Your task to perform on an android device: Open Youtube and go to "Your channel" Image 0: 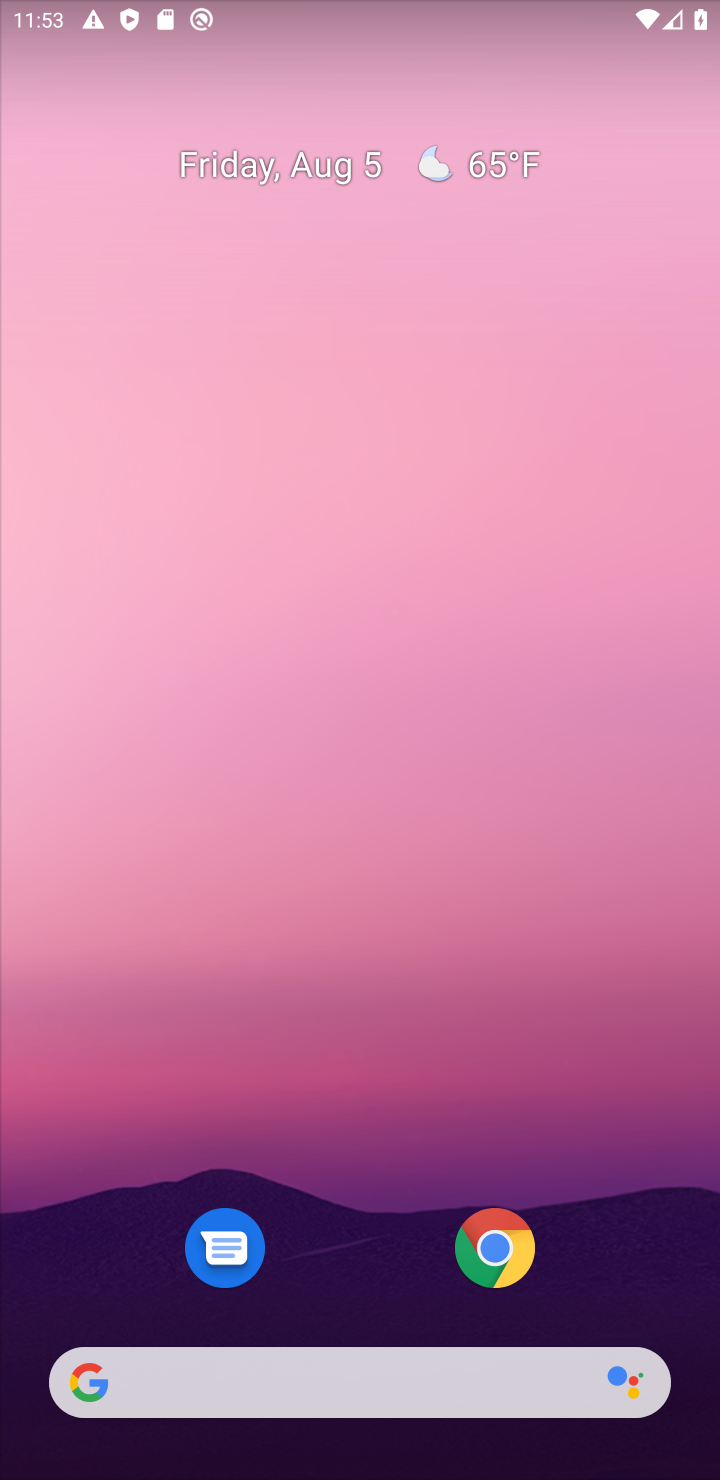
Step 0: drag from (350, 1308) to (366, 115)
Your task to perform on an android device: Open Youtube and go to "Your channel" Image 1: 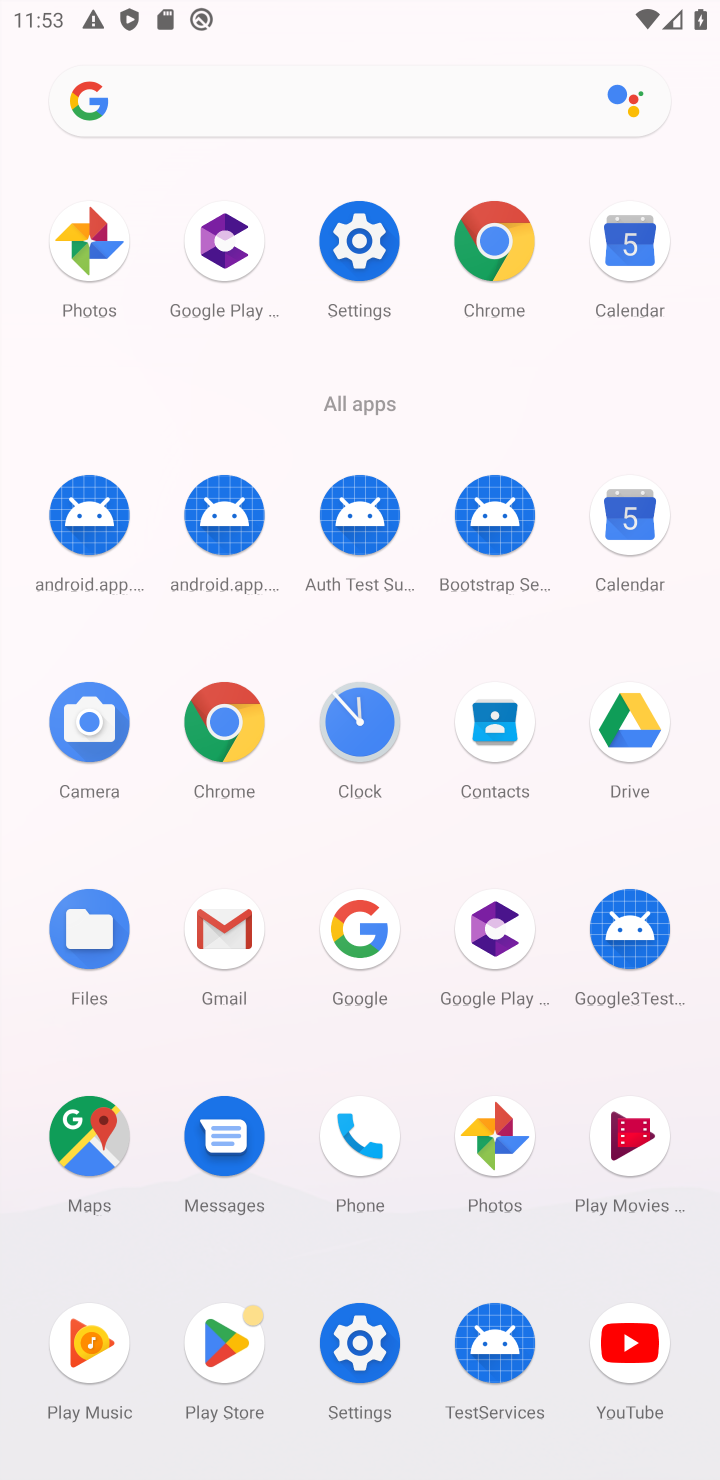
Step 1: click (629, 1335)
Your task to perform on an android device: Open Youtube and go to "Your channel" Image 2: 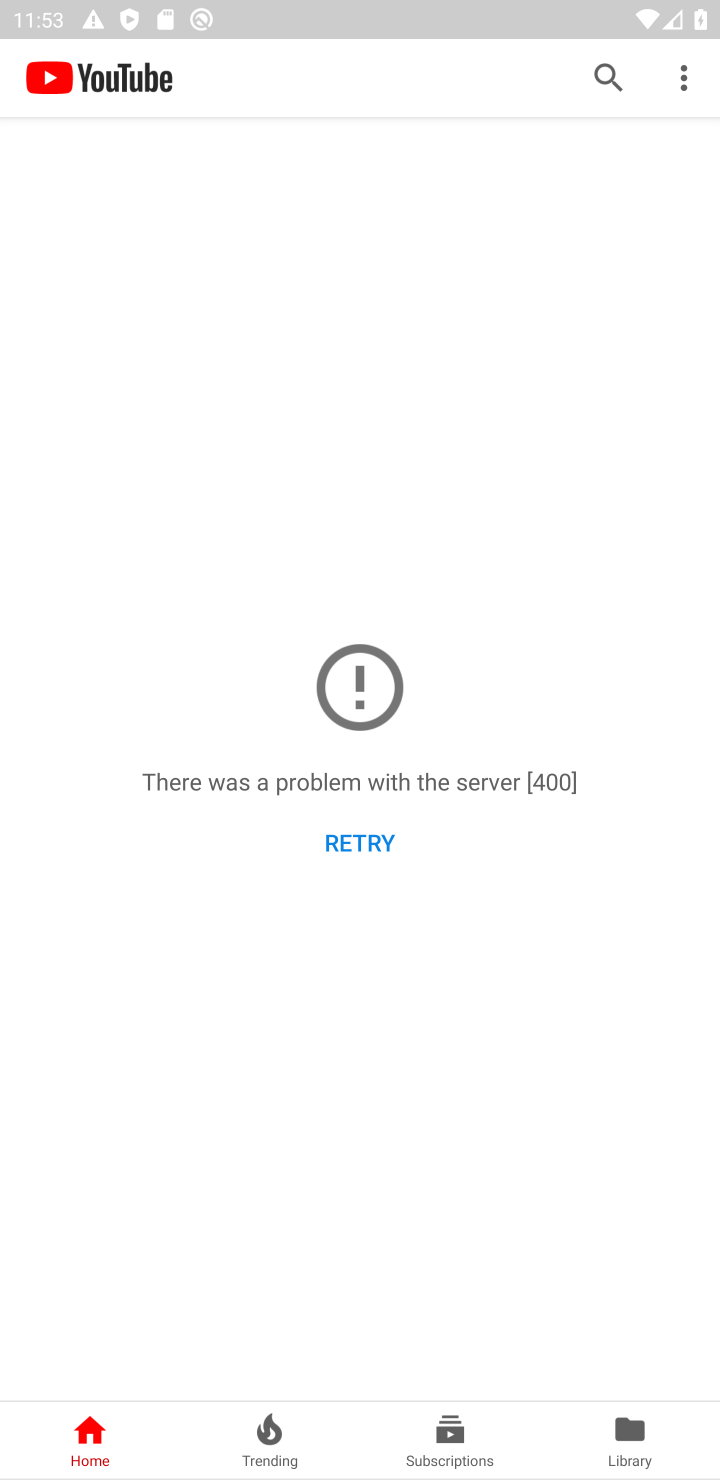
Step 2: click (629, 1434)
Your task to perform on an android device: Open Youtube and go to "Your channel" Image 3: 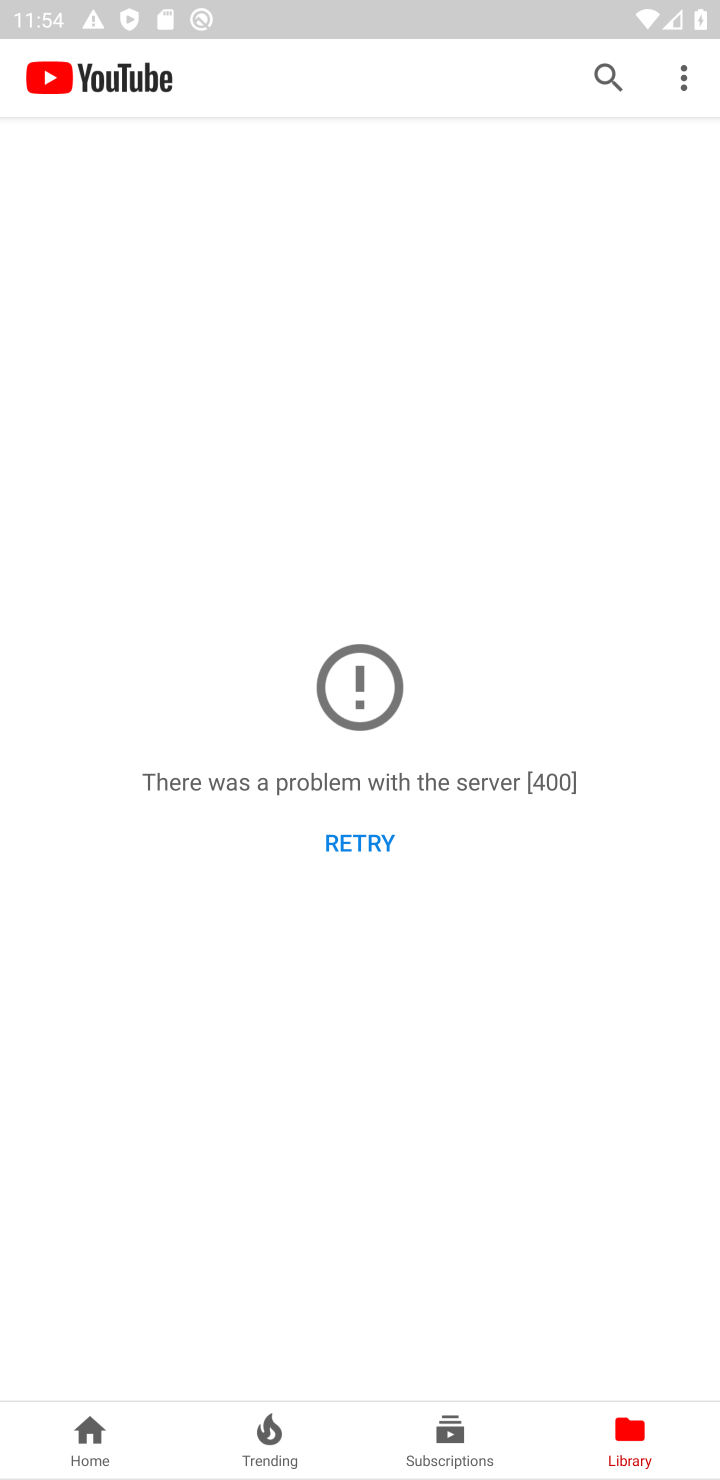
Step 3: click (364, 841)
Your task to perform on an android device: Open Youtube and go to "Your channel" Image 4: 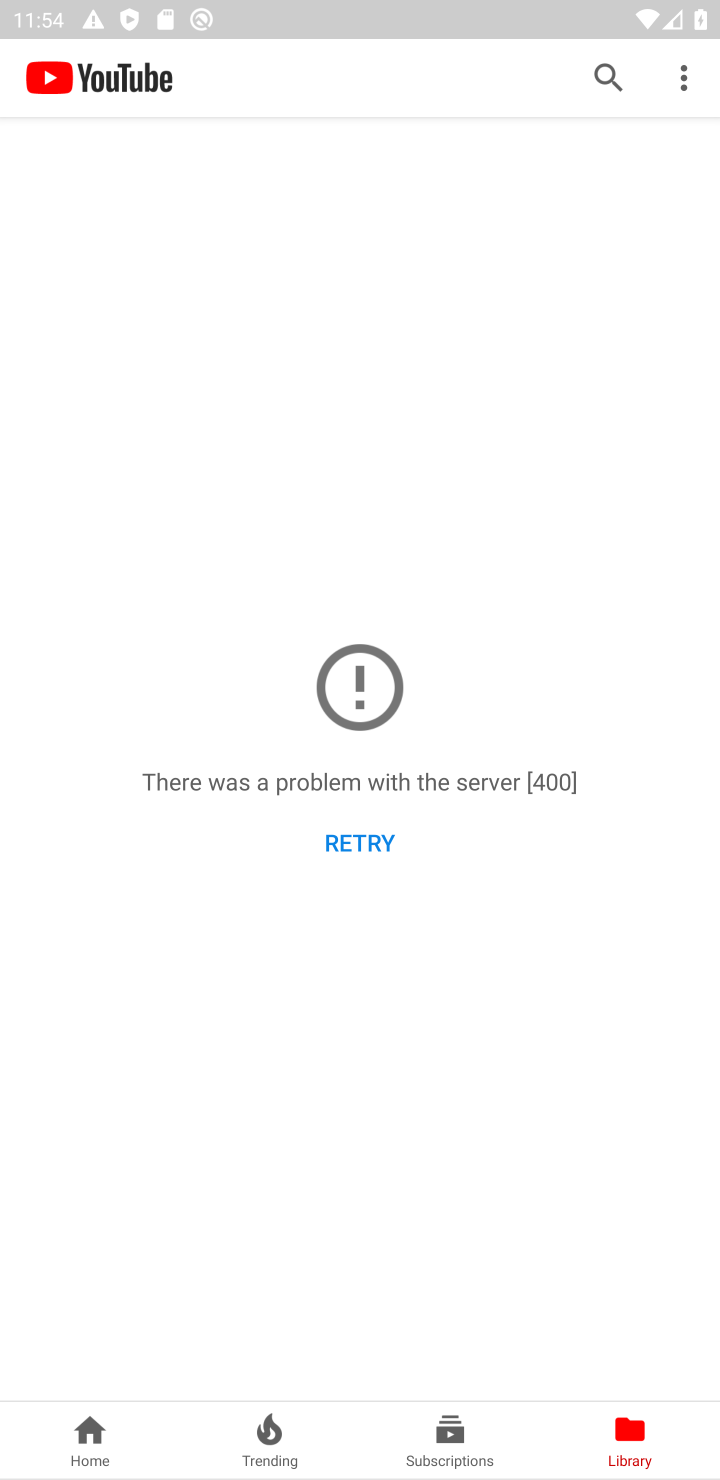
Step 4: click (682, 64)
Your task to perform on an android device: Open Youtube and go to "Your channel" Image 5: 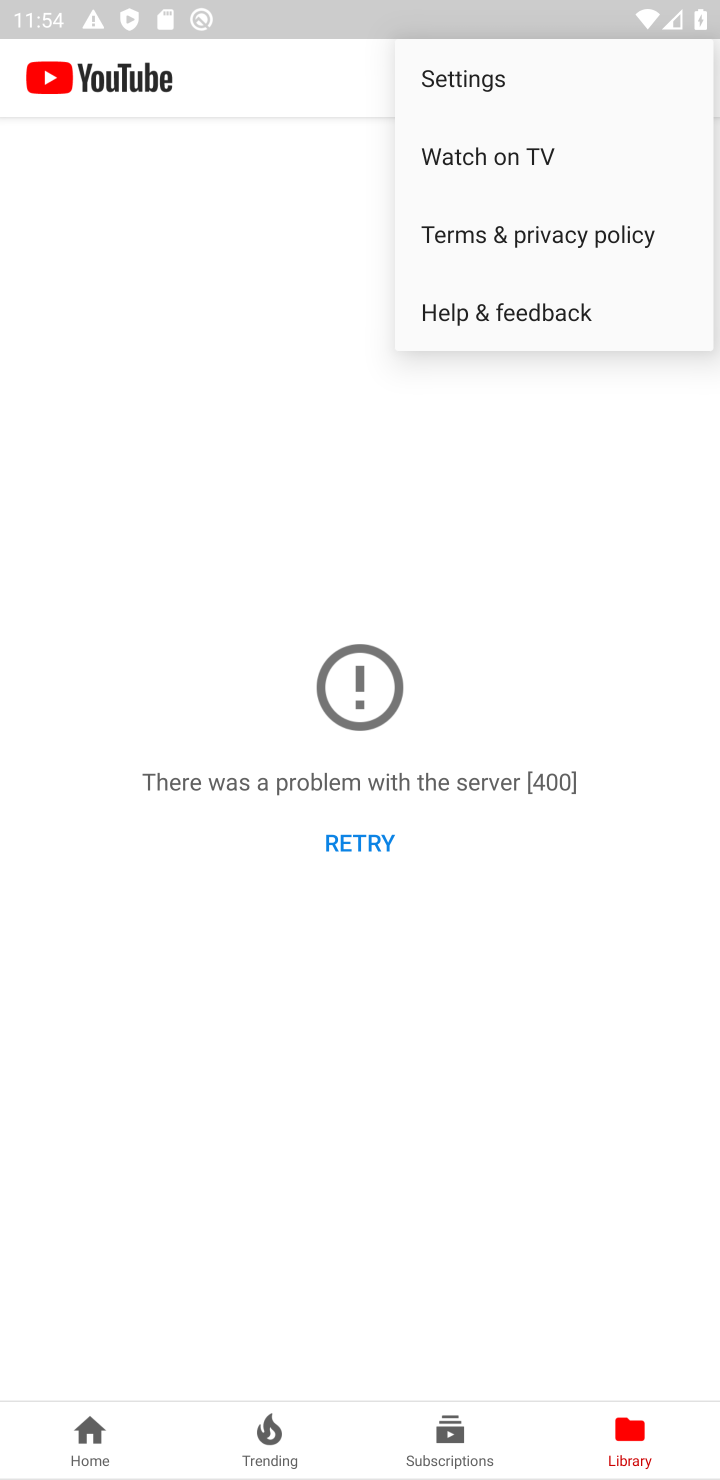
Step 5: click (521, 62)
Your task to perform on an android device: Open Youtube and go to "Your channel" Image 6: 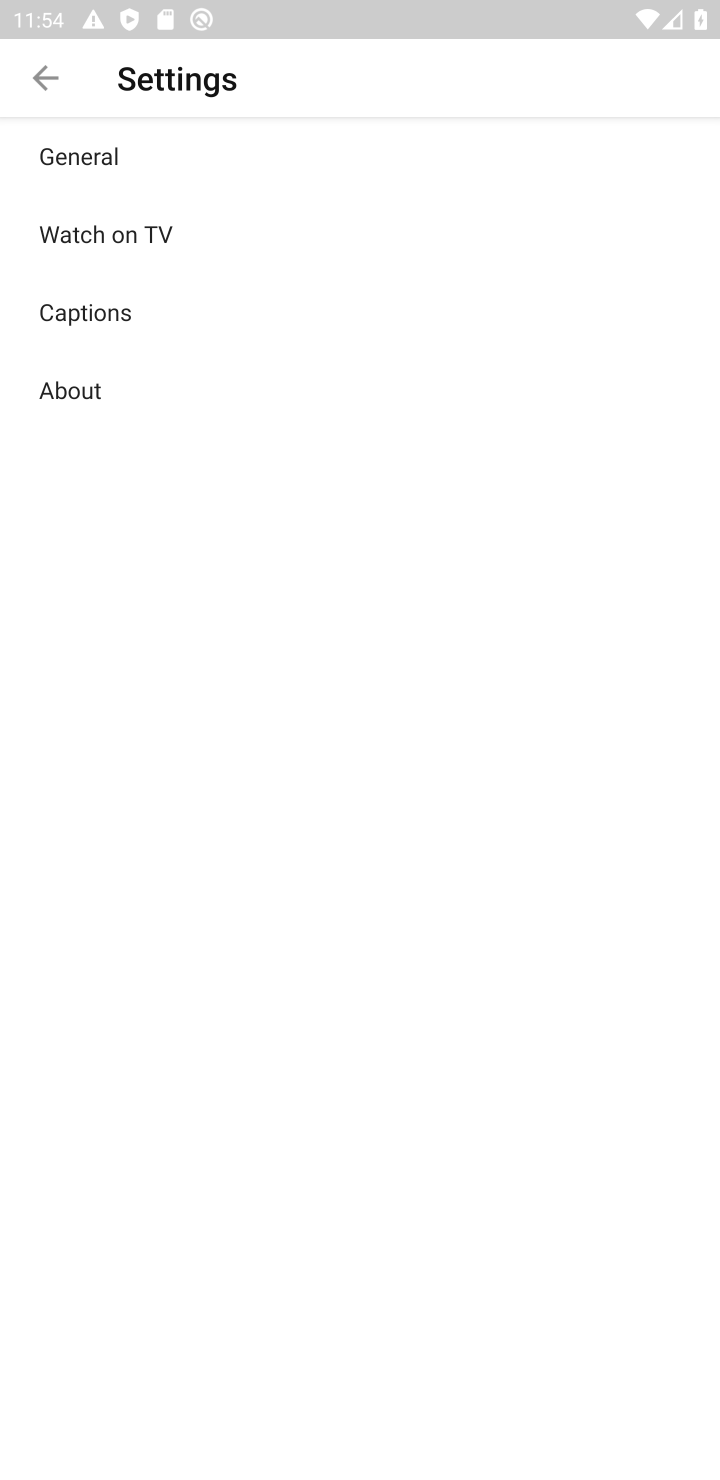
Step 6: task complete